Your task to perform on an android device: turn on the 12-hour format for clock Image 0: 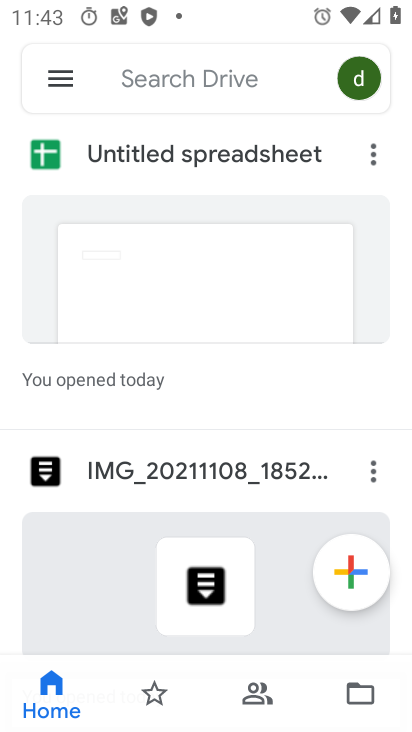
Step 0: press home button
Your task to perform on an android device: turn on the 12-hour format for clock Image 1: 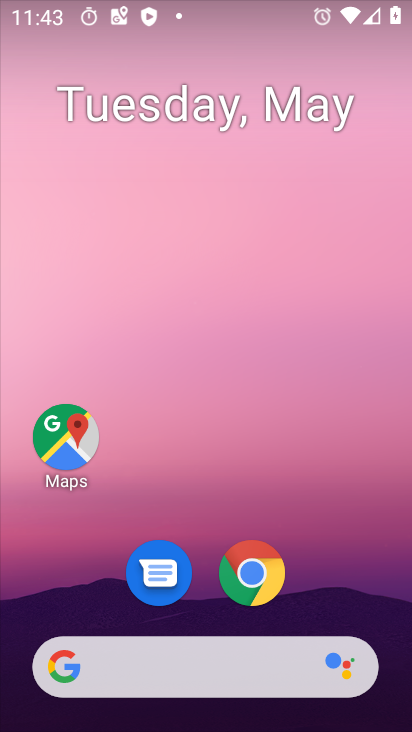
Step 1: drag from (295, 700) to (318, 277)
Your task to perform on an android device: turn on the 12-hour format for clock Image 2: 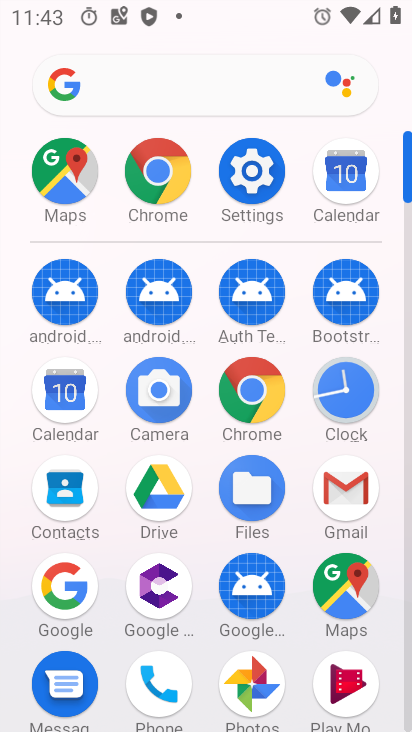
Step 2: click (347, 383)
Your task to perform on an android device: turn on the 12-hour format for clock Image 3: 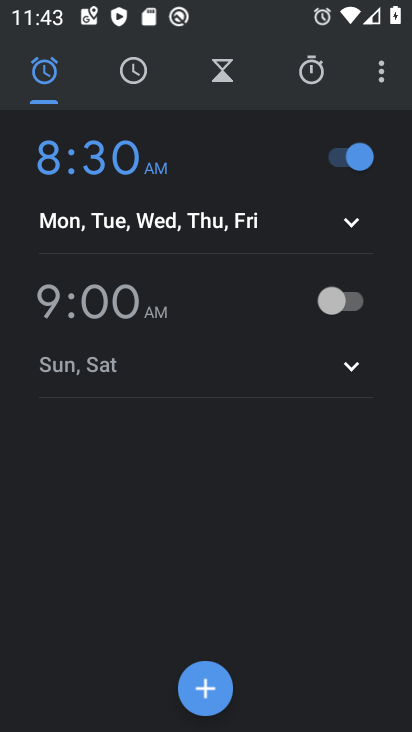
Step 3: click (386, 67)
Your task to perform on an android device: turn on the 12-hour format for clock Image 4: 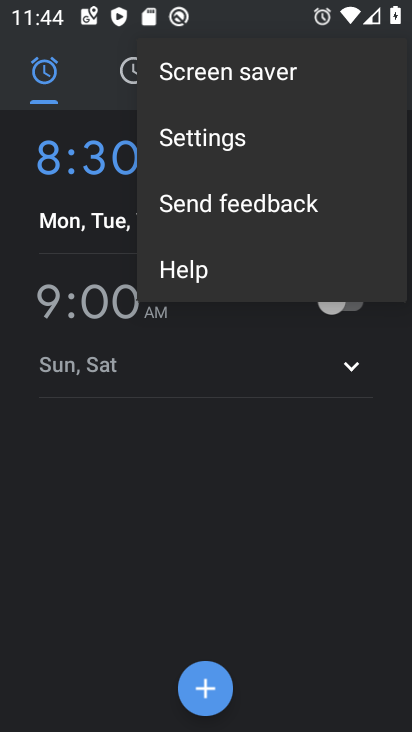
Step 4: click (267, 134)
Your task to perform on an android device: turn on the 12-hour format for clock Image 5: 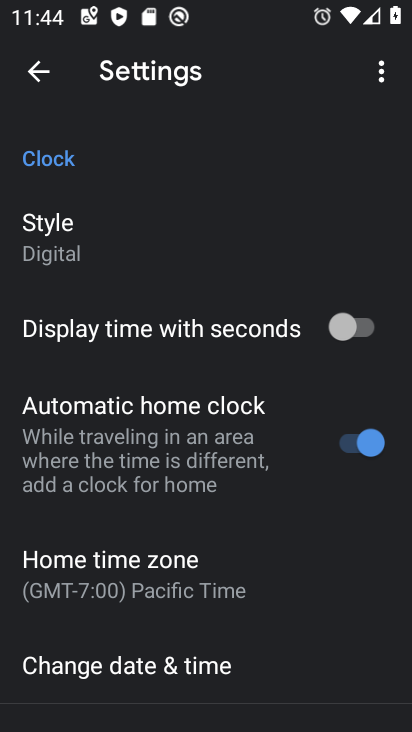
Step 5: click (157, 659)
Your task to perform on an android device: turn on the 12-hour format for clock Image 6: 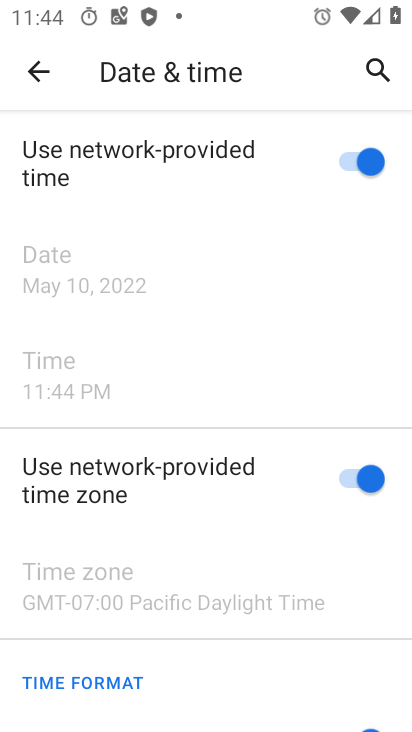
Step 6: drag from (213, 557) to (218, 421)
Your task to perform on an android device: turn on the 12-hour format for clock Image 7: 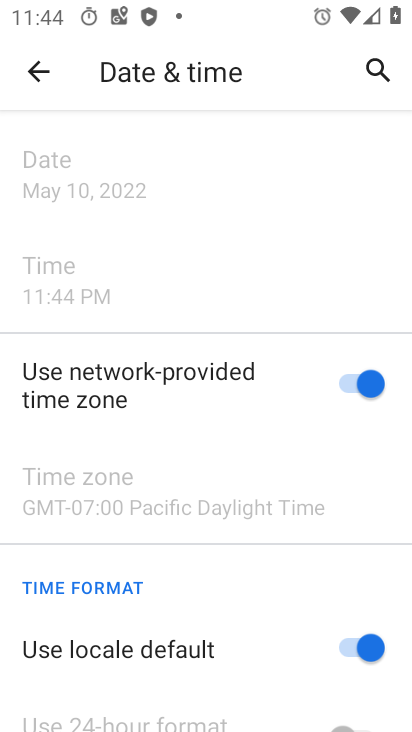
Step 7: drag from (290, 483) to (318, 350)
Your task to perform on an android device: turn on the 12-hour format for clock Image 8: 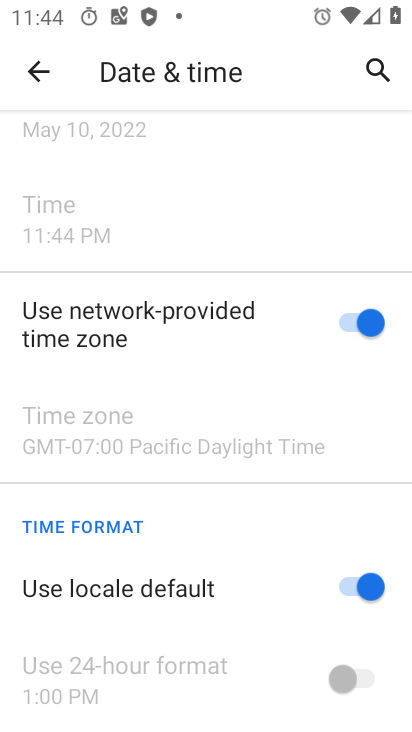
Step 8: click (334, 598)
Your task to perform on an android device: turn on the 12-hour format for clock Image 9: 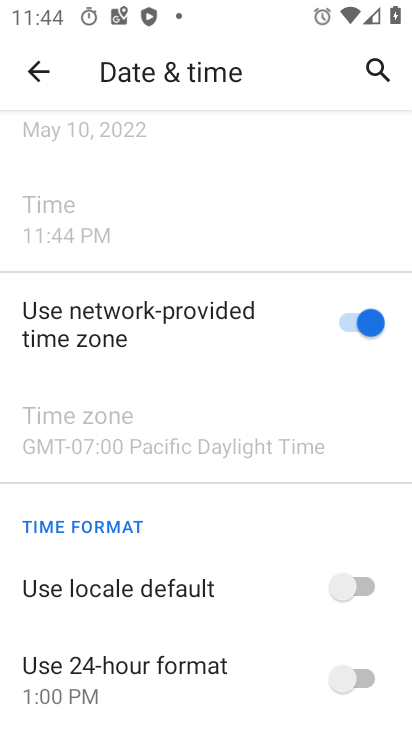
Step 9: click (355, 667)
Your task to perform on an android device: turn on the 12-hour format for clock Image 10: 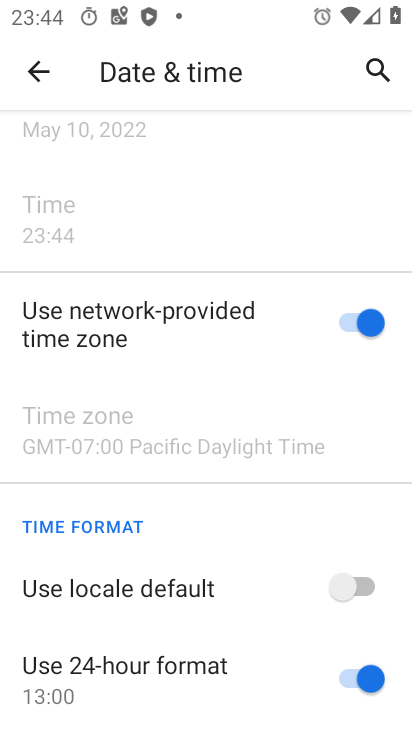
Step 10: click (351, 694)
Your task to perform on an android device: turn on the 12-hour format for clock Image 11: 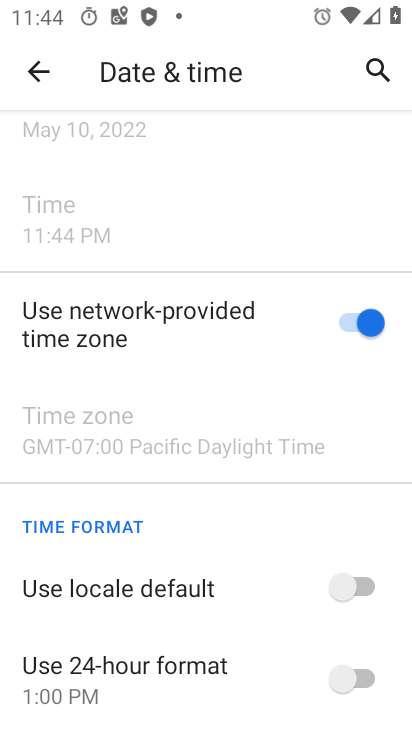
Step 11: task complete